Your task to perform on an android device: Go to battery settings Image 0: 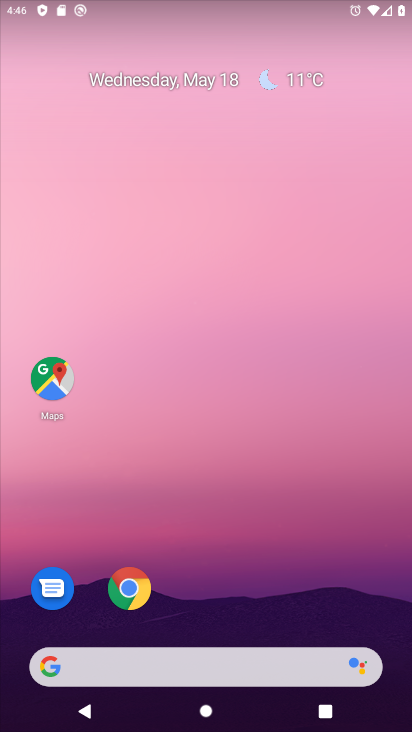
Step 0: drag from (198, 642) to (235, 143)
Your task to perform on an android device: Go to battery settings Image 1: 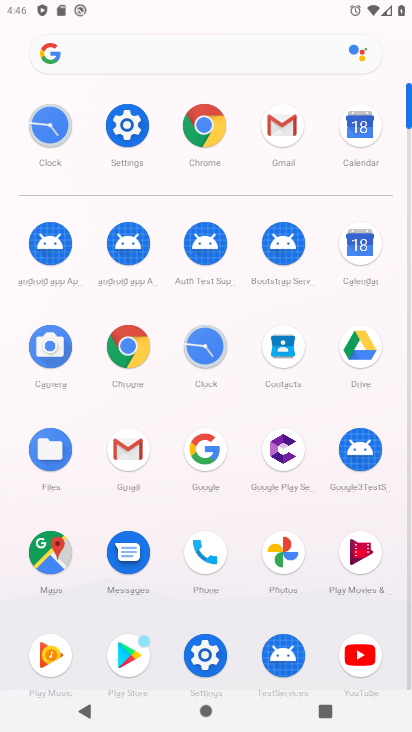
Step 1: click (131, 123)
Your task to perform on an android device: Go to battery settings Image 2: 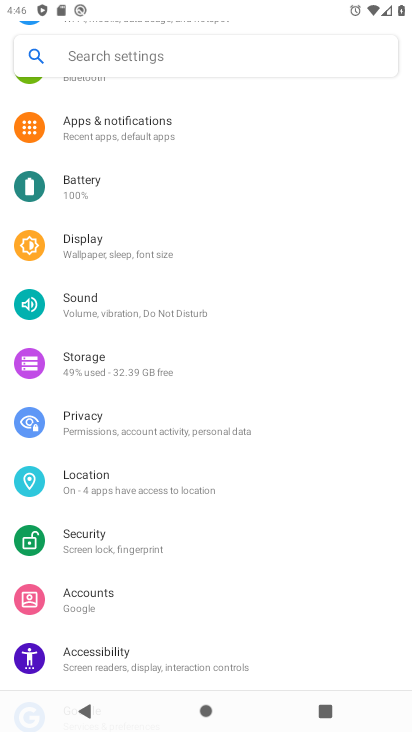
Step 2: click (116, 178)
Your task to perform on an android device: Go to battery settings Image 3: 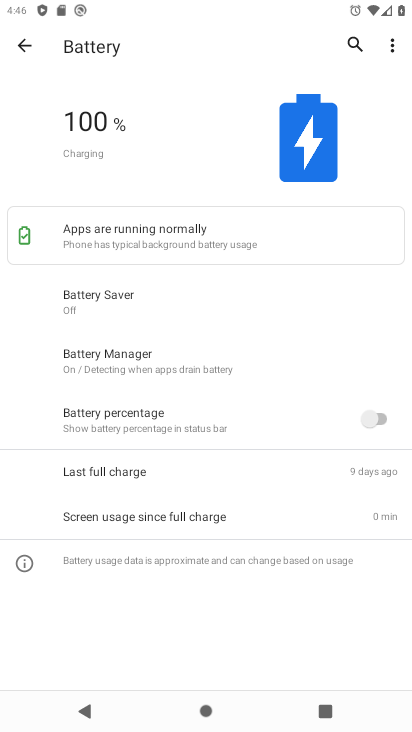
Step 3: task complete